Your task to perform on an android device: toggle translation in the chrome app Image 0: 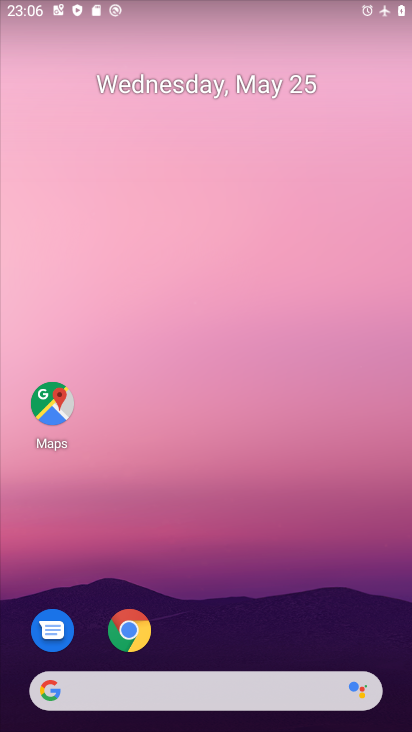
Step 0: click (127, 622)
Your task to perform on an android device: toggle translation in the chrome app Image 1: 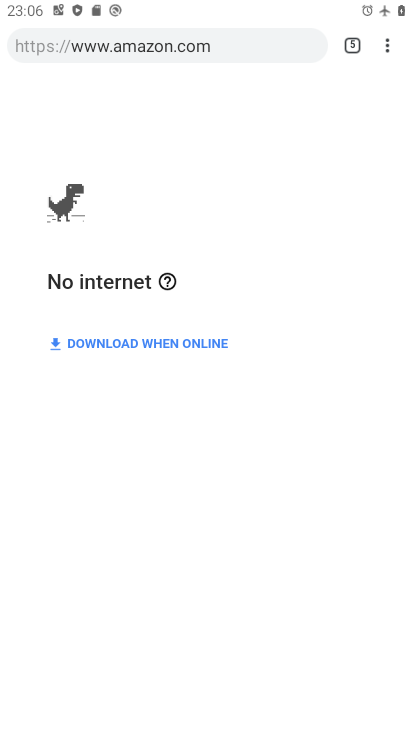
Step 1: click (387, 50)
Your task to perform on an android device: toggle translation in the chrome app Image 2: 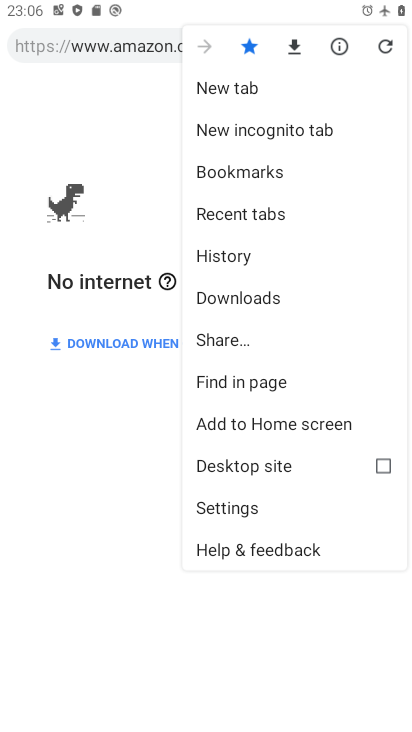
Step 2: click (222, 496)
Your task to perform on an android device: toggle translation in the chrome app Image 3: 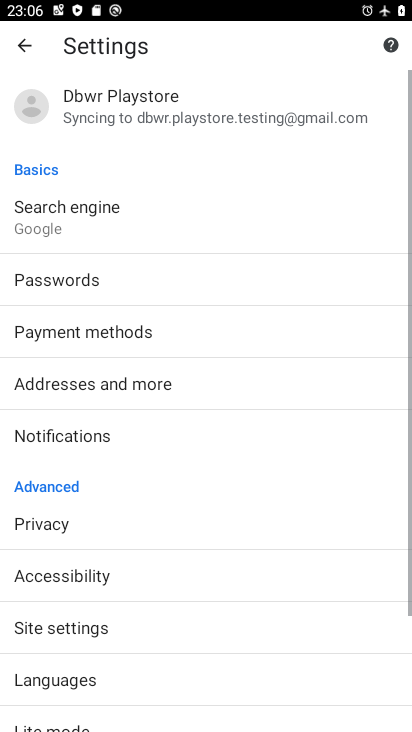
Step 3: drag from (201, 606) to (212, 266)
Your task to perform on an android device: toggle translation in the chrome app Image 4: 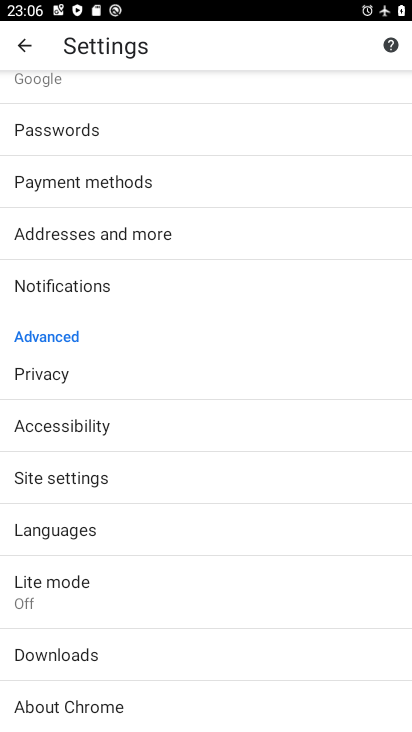
Step 4: click (99, 531)
Your task to perform on an android device: toggle translation in the chrome app Image 5: 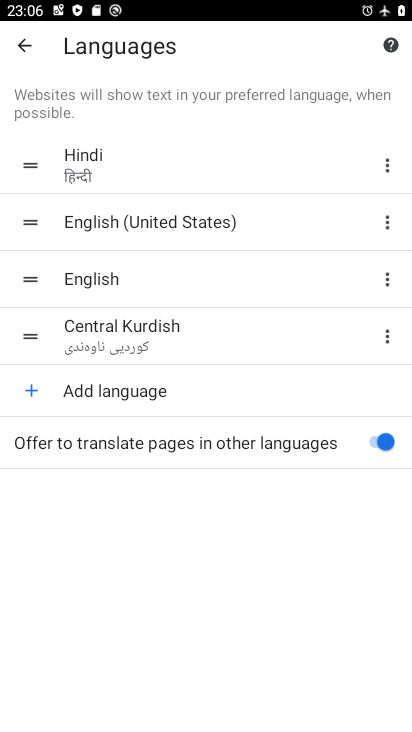
Step 5: task complete